Your task to perform on an android device: see sites visited before in the chrome app Image 0: 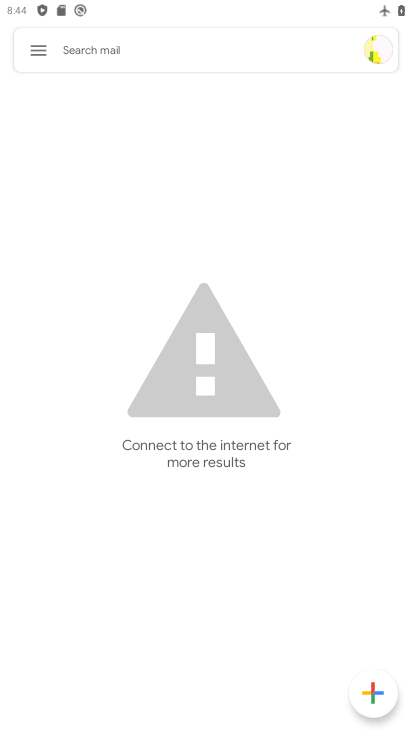
Step 0: press home button
Your task to perform on an android device: see sites visited before in the chrome app Image 1: 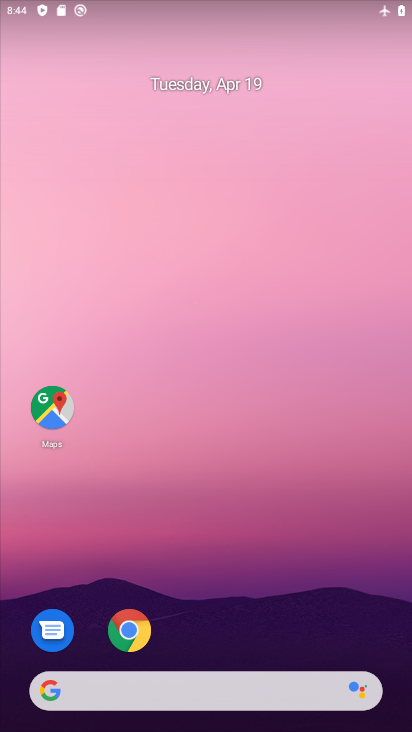
Step 1: drag from (251, 694) to (280, 148)
Your task to perform on an android device: see sites visited before in the chrome app Image 2: 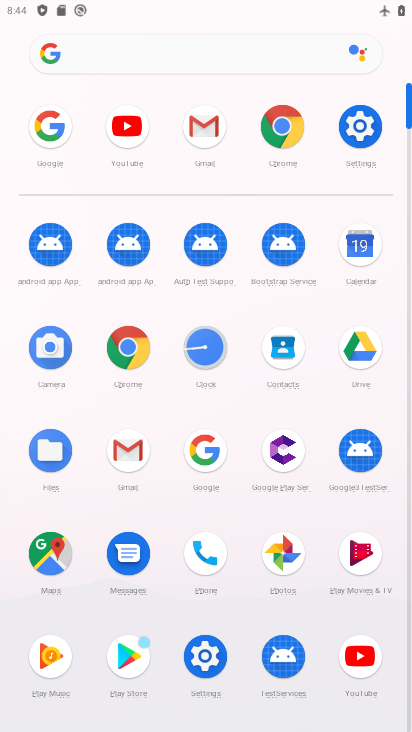
Step 2: click (288, 139)
Your task to perform on an android device: see sites visited before in the chrome app Image 3: 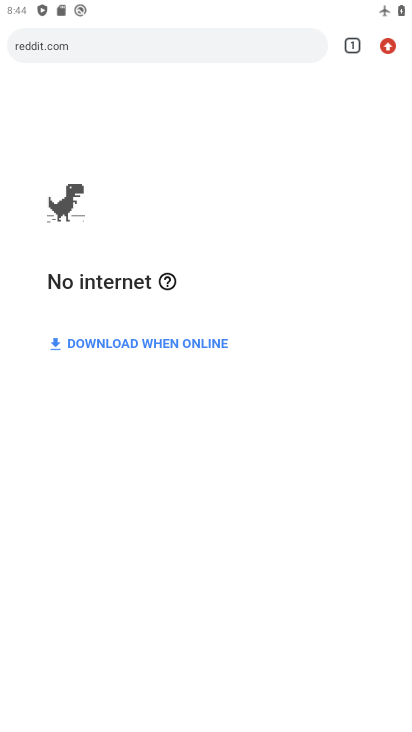
Step 3: click (388, 52)
Your task to perform on an android device: see sites visited before in the chrome app Image 4: 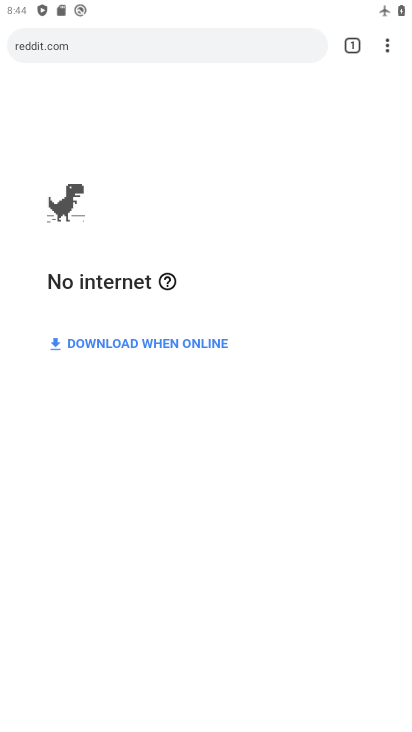
Step 4: click (388, 52)
Your task to perform on an android device: see sites visited before in the chrome app Image 5: 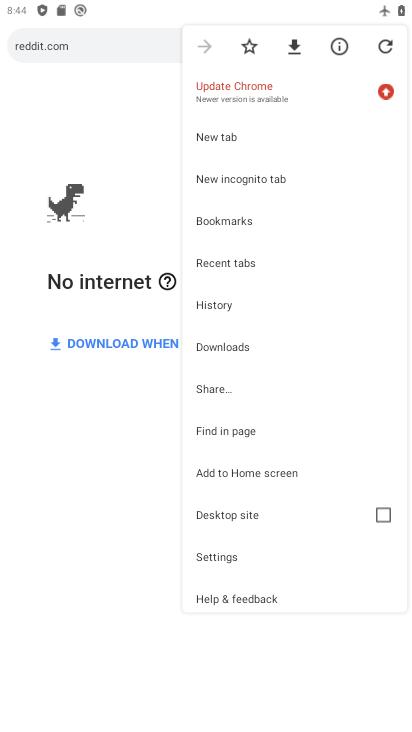
Step 5: click (252, 302)
Your task to perform on an android device: see sites visited before in the chrome app Image 6: 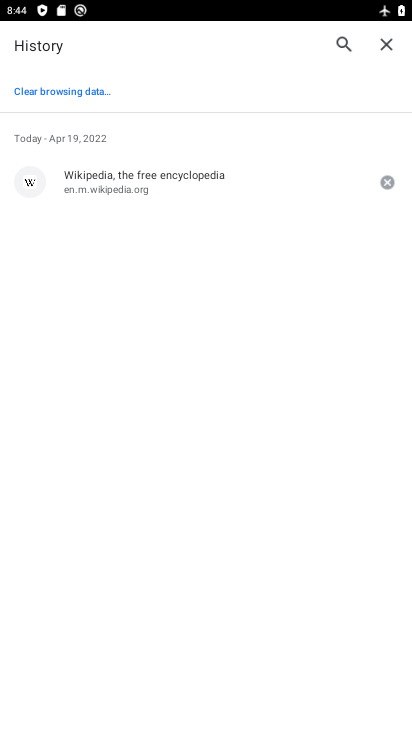
Step 6: task complete